Your task to perform on an android device: change notification settings in the gmail app Image 0: 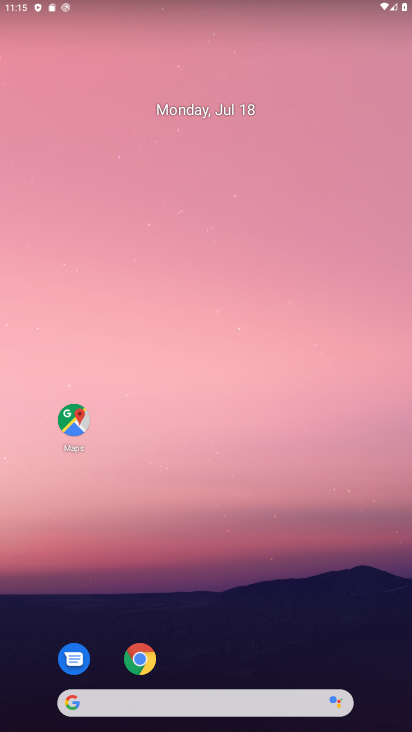
Step 0: drag from (183, 661) to (244, 73)
Your task to perform on an android device: change notification settings in the gmail app Image 1: 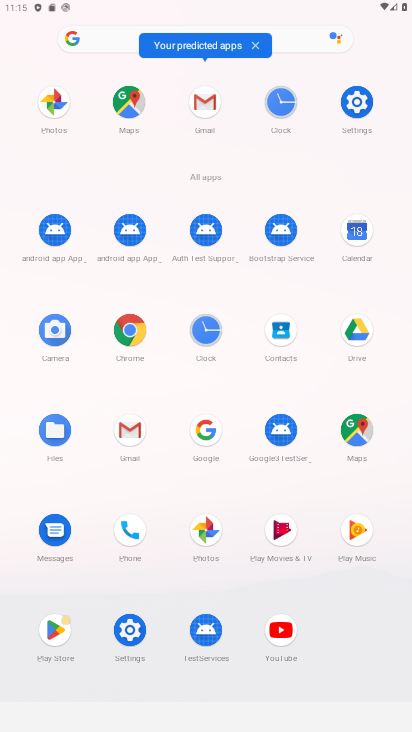
Step 1: click (133, 626)
Your task to perform on an android device: change notification settings in the gmail app Image 2: 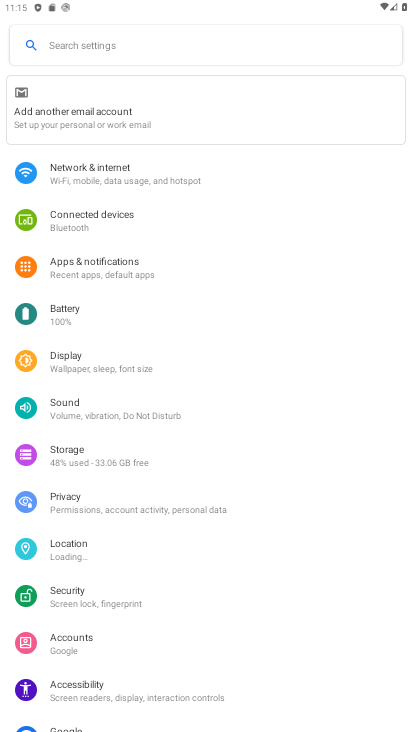
Step 2: click (104, 264)
Your task to perform on an android device: change notification settings in the gmail app Image 3: 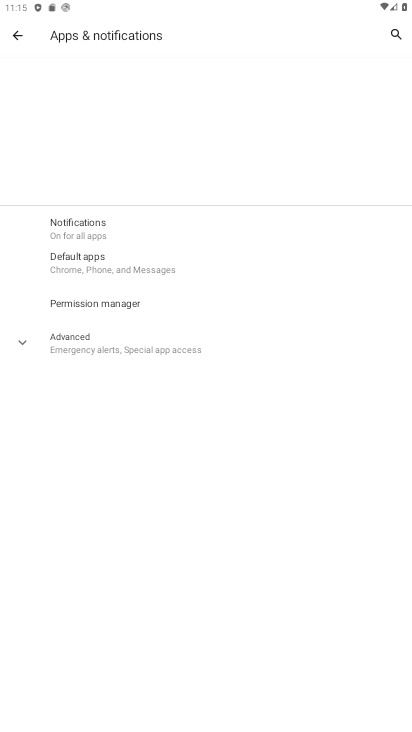
Step 3: click (110, 226)
Your task to perform on an android device: change notification settings in the gmail app Image 4: 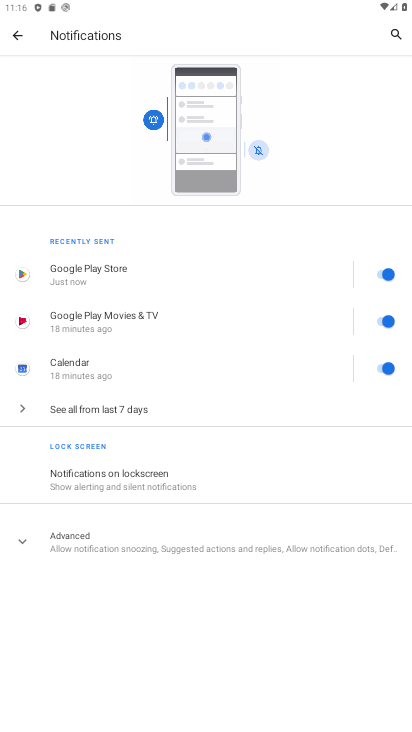
Step 4: click (72, 548)
Your task to perform on an android device: change notification settings in the gmail app Image 5: 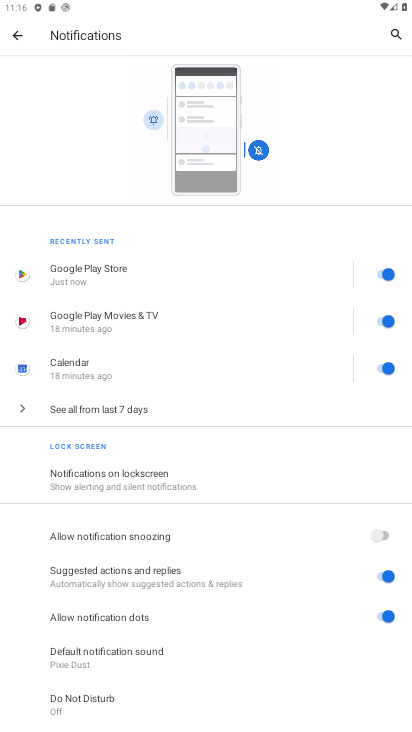
Step 5: click (385, 569)
Your task to perform on an android device: change notification settings in the gmail app Image 6: 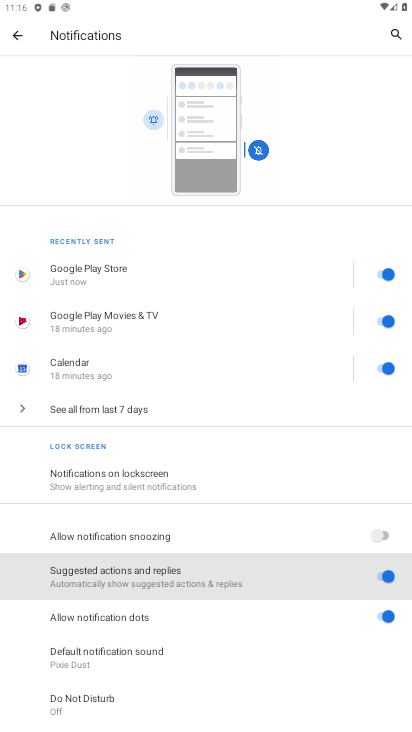
Step 6: click (389, 623)
Your task to perform on an android device: change notification settings in the gmail app Image 7: 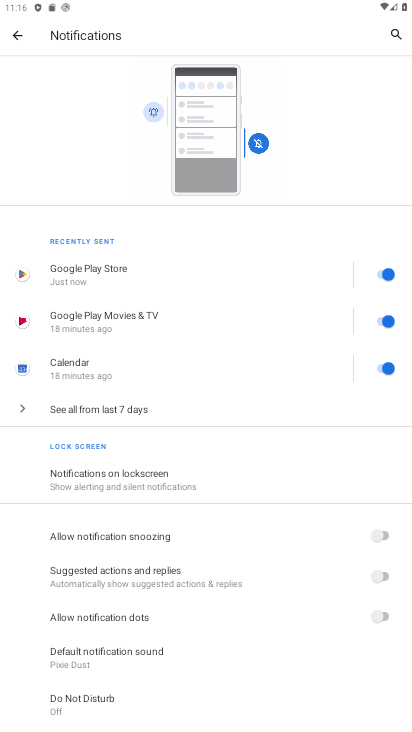
Step 7: click (383, 542)
Your task to perform on an android device: change notification settings in the gmail app Image 8: 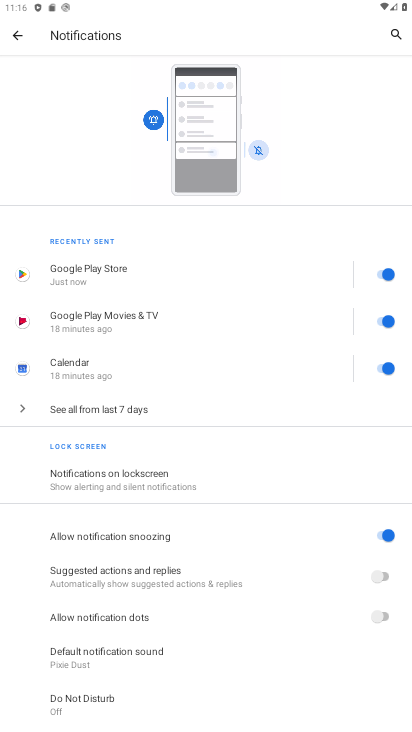
Step 8: task complete